Your task to perform on an android device: Open CNN.com Image 0: 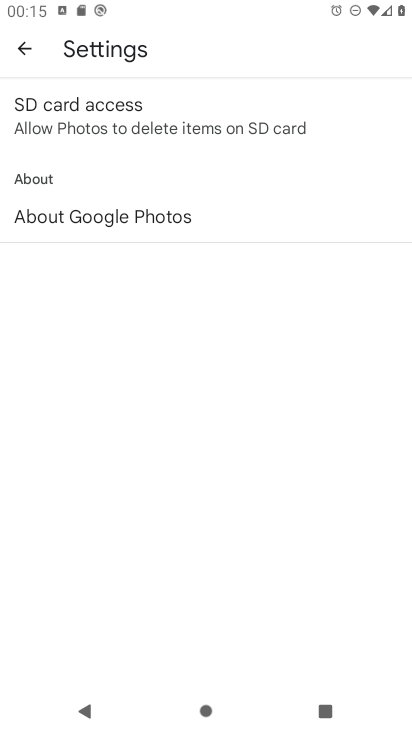
Step 0: press home button
Your task to perform on an android device: Open CNN.com Image 1: 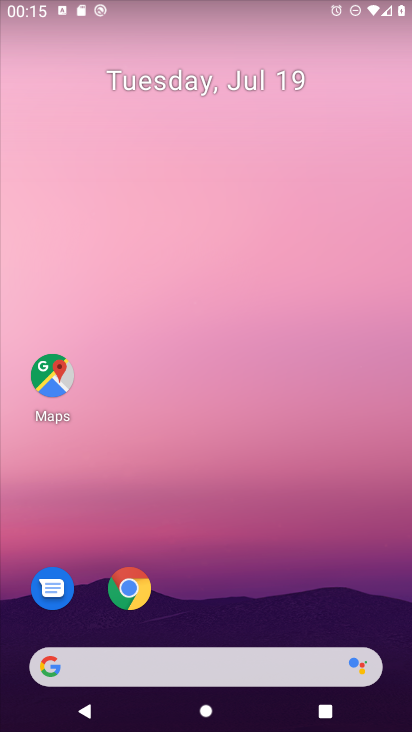
Step 1: click (128, 590)
Your task to perform on an android device: Open CNN.com Image 2: 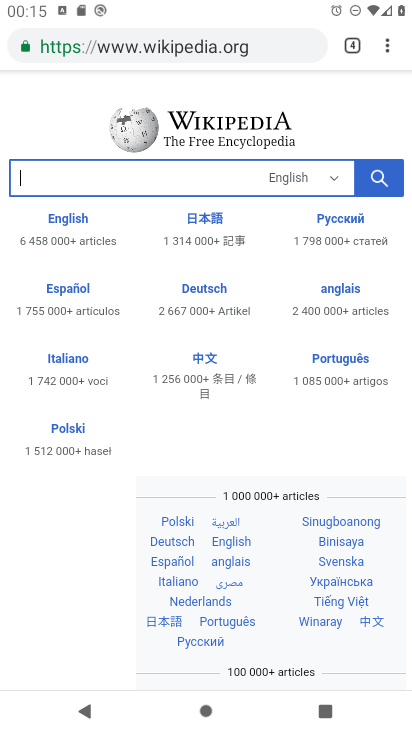
Step 2: click (273, 49)
Your task to perform on an android device: Open CNN.com Image 3: 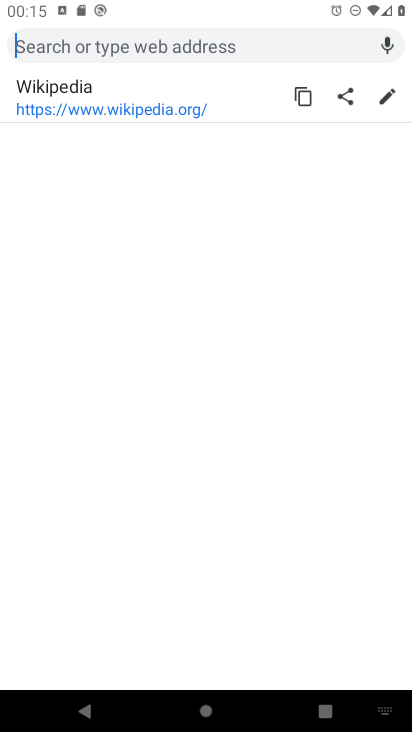
Step 3: type "CNN.com"
Your task to perform on an android device: Open CNN.com Image 4: 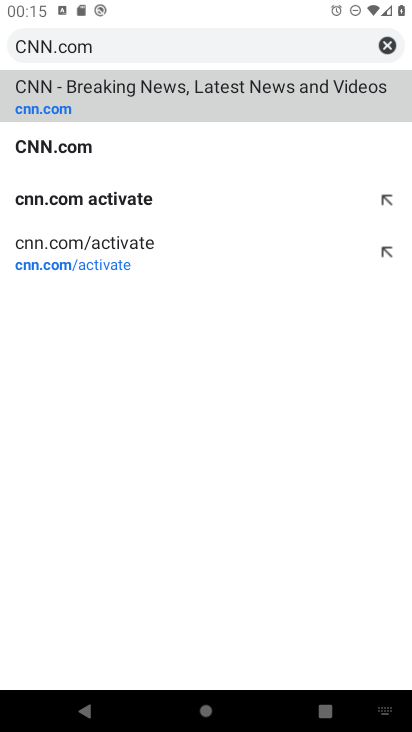
Step 4: click (84, 88)
Your task to perform on an android device: Open CNN.com Image 5: 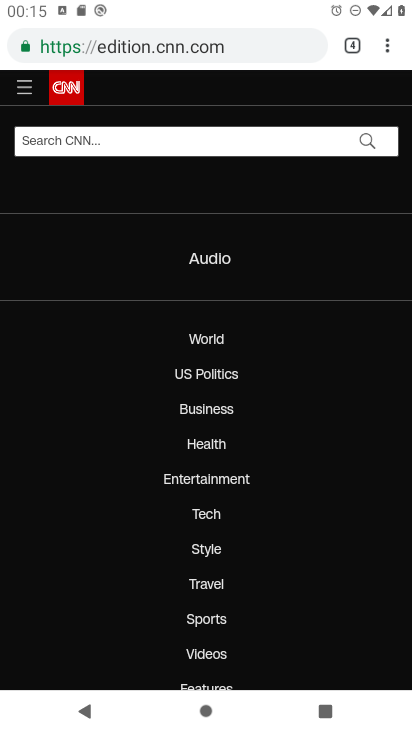
Step 5: task complete